Your task to perform on an android device: Go to ESPN.com Image 0: 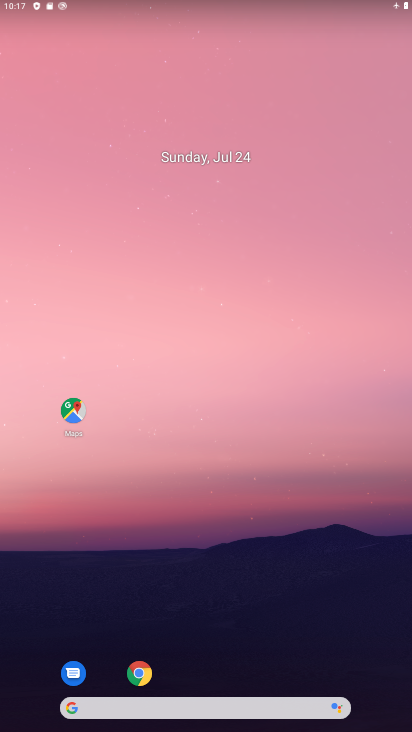
Step 0: click (240, 700)
Your task to perform on an android device: Go to ESPN.com Image 1: 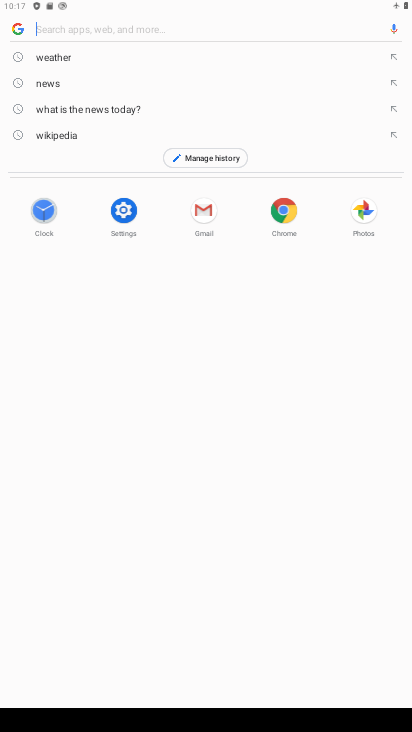
Step 1: type "ESPN.com"
Your task to perform on an android device: Go to ESPN.com Image 2: 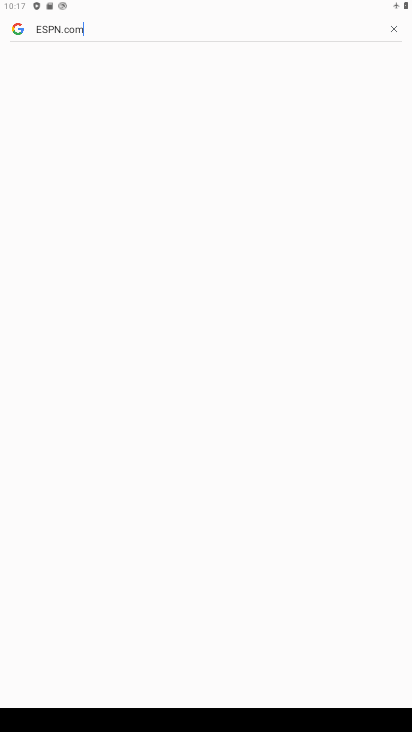
Step 2: press enter
Your task to perform on an android device: Go to ESPN.com Image 3: 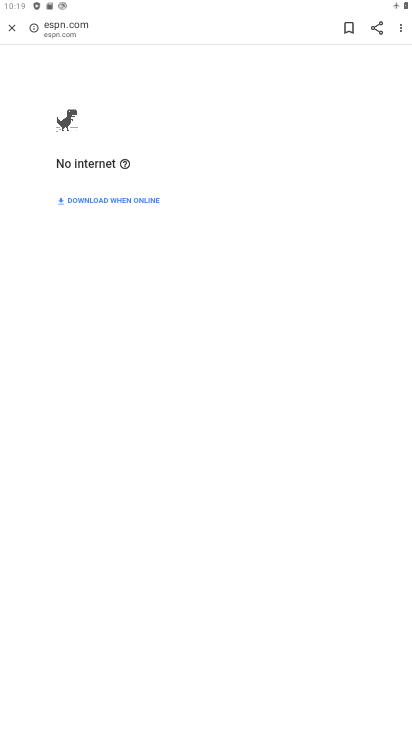
Step 3: drag from (303, 32) to (315, 366)
Your task to perform on an android device: Go to ESPN.com Image 4: 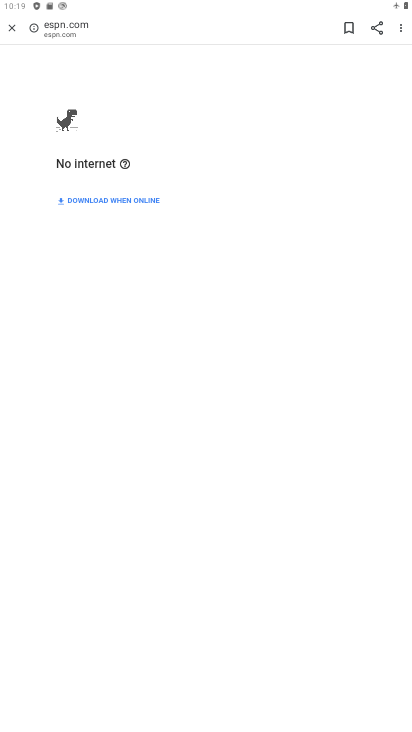
Step 4: drag from (241, 0) to (250, 322)
Your task to perform on an android device: Go to ESPN.com Image 5: 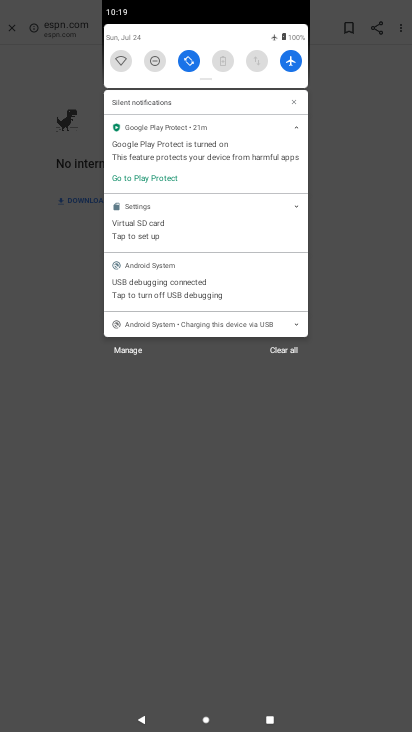
Step 5: click (294, 67)
Your task to perform on an android device: Go to ESPN.com Image 6: 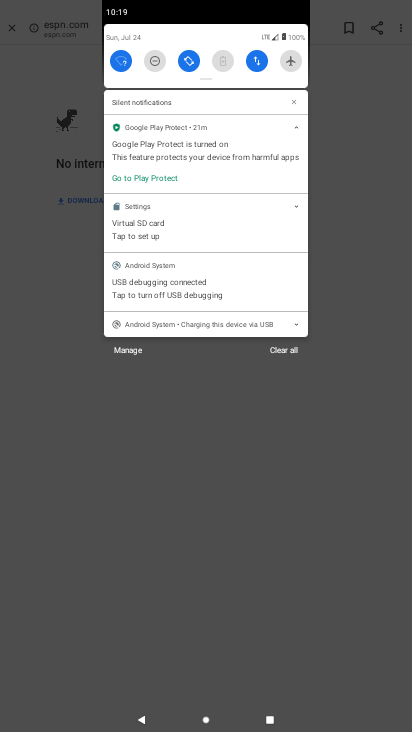
Step 6: click (278, 431)
Your task to perform on an android device: Go to ESPN.com Image 7: 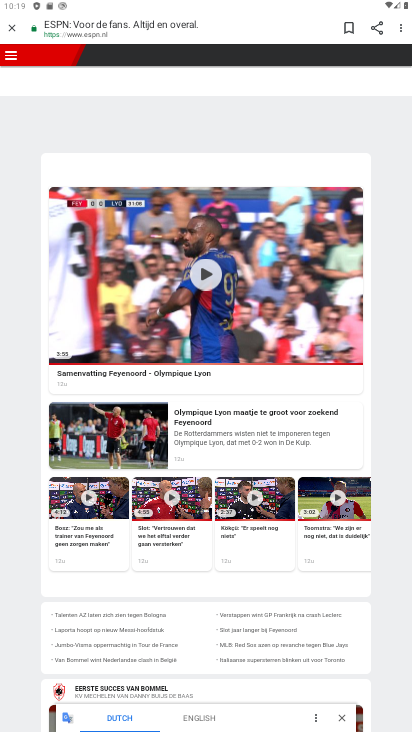
Step 7: task complete